Your task to perform on an android device: check battery use Image 0: 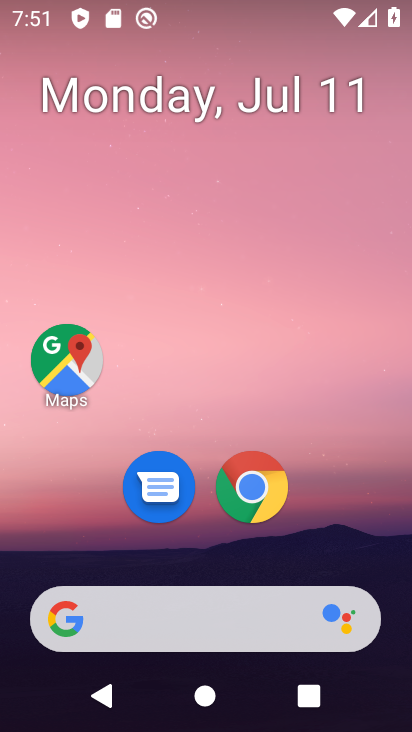
Step 0: drag from (207, 530) to (286, 48)
Your task to perform on an android device: check battery use Image 1: 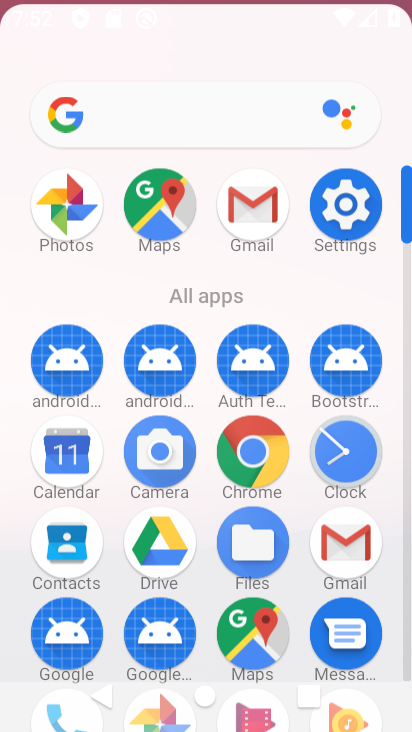
Step 1: drag from (172, 569) to (228, 67)
Your task to perform on an android device: check battery use Image 2: 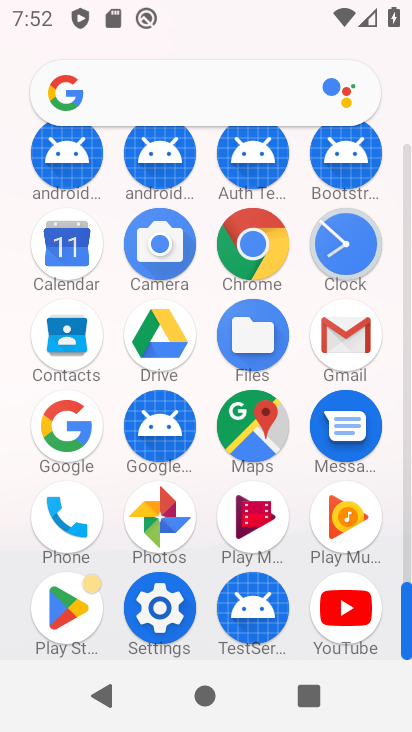
Step 2: click (172, 614)
Your task to perform on an android device: check battery use Image 3: 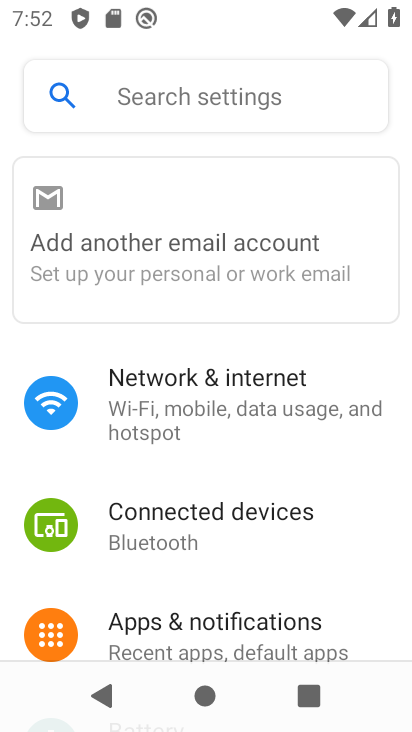
Step 3: click (146, 575)
Your task to perform on an android device: check battery use Image 4: 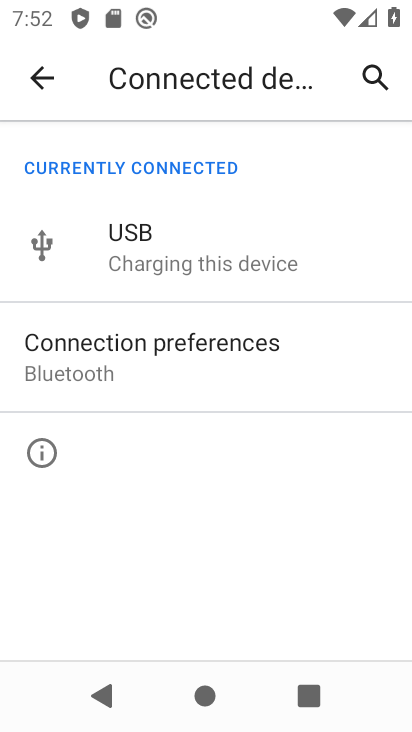
Step 4: click (47, 69)
Your task to perform on an android device: check battery use Image 5: 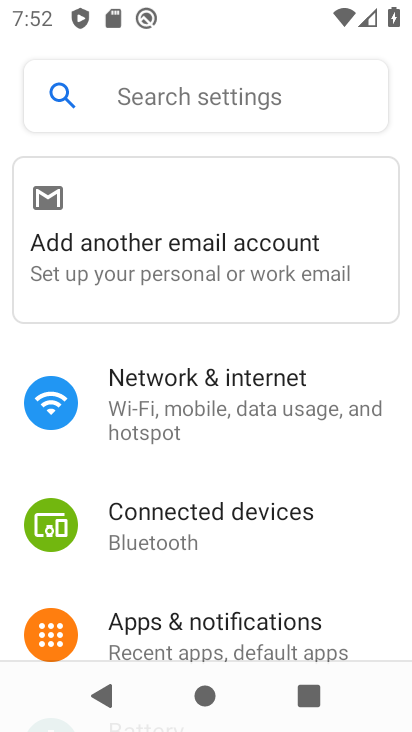
Step 5: drag from (146, 617) to (234, 198)
Your task to perform on an android device: check battery use Image 6: 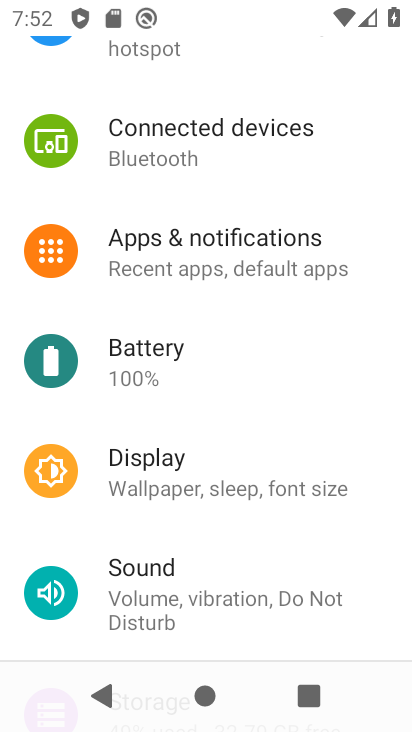
Step 6: click (182, 359)
Your task to perform on an android device: check battery use Image 7: 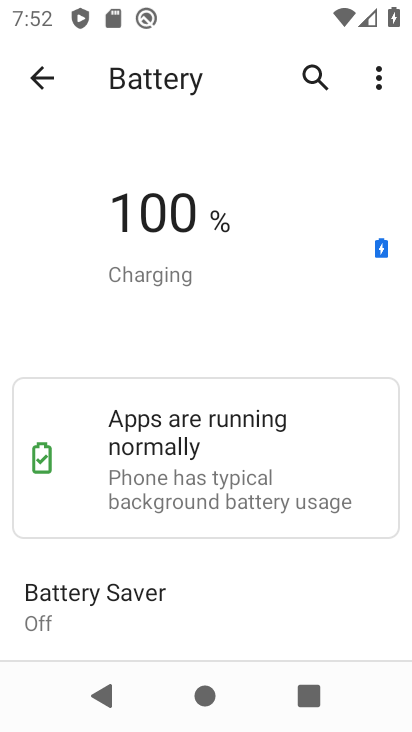
Step 7: click (373, 66)
Your task to perform on an android device: check battery use Image 8: 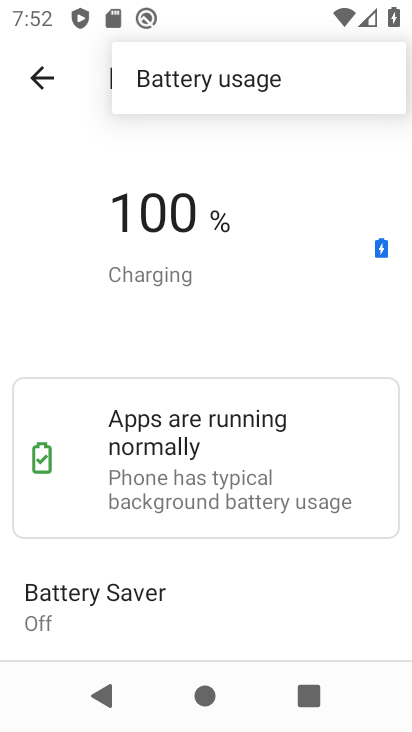
Step 8: click (272, 84)
Your task to perform on an android device: check battery use Image 9: 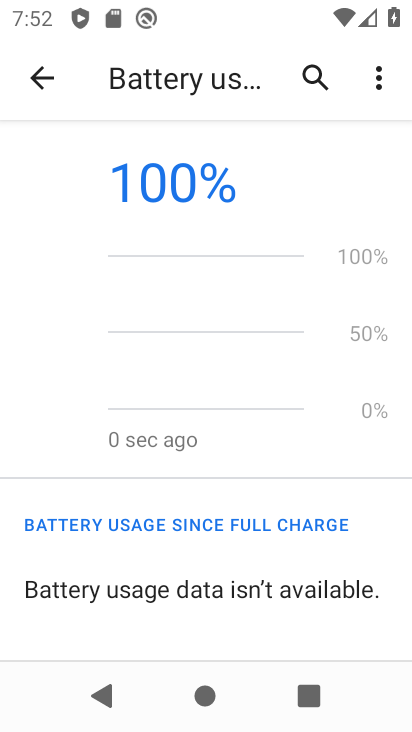
Step 9: task complete